Your task to perform on an android device: turn on data saver in the chrome app Image 0: 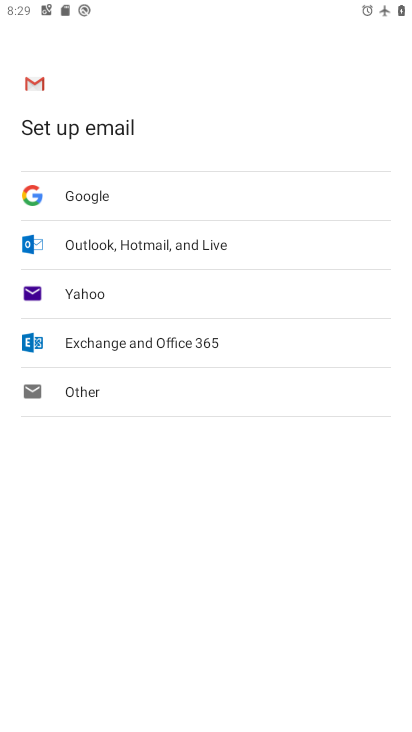
Step 0: press home button
Your task to perform on an android device: turn on data saver in the chrome app Image 1: 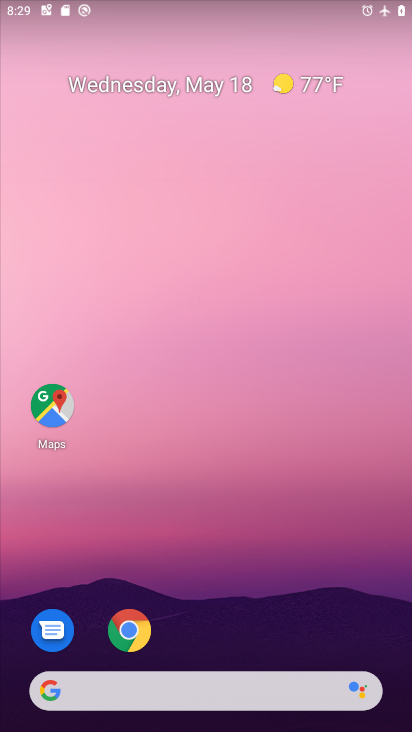
Step 1: drag from (259, 630) to (287, 248)
Your task to perform on an android device: turn on data saver in the chrome app Image 2: 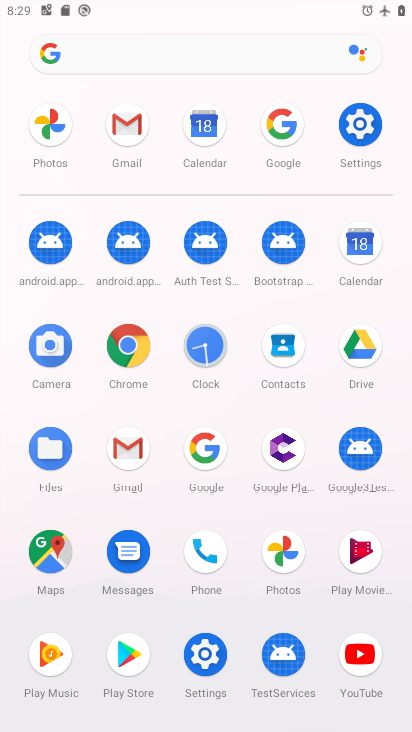
Step 2: click (138, 356)
Your task to perform on an android device: turn on data saver in the chrome app Image 3: 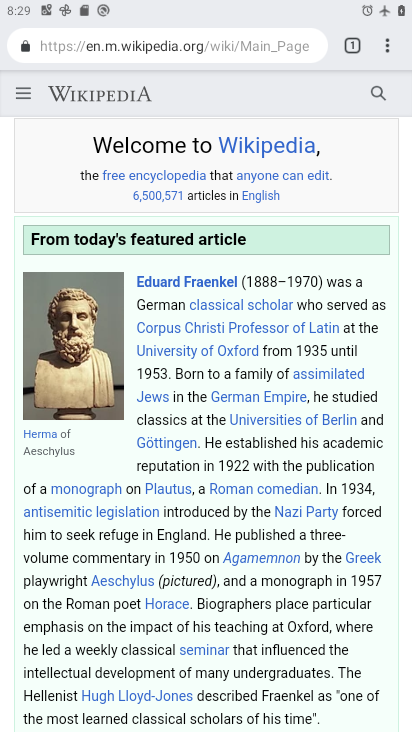
Step 3: drag from (387, 50) to (206, 505)
Your task to perform on an android device: turn on data saver in the chrome app Image 4: 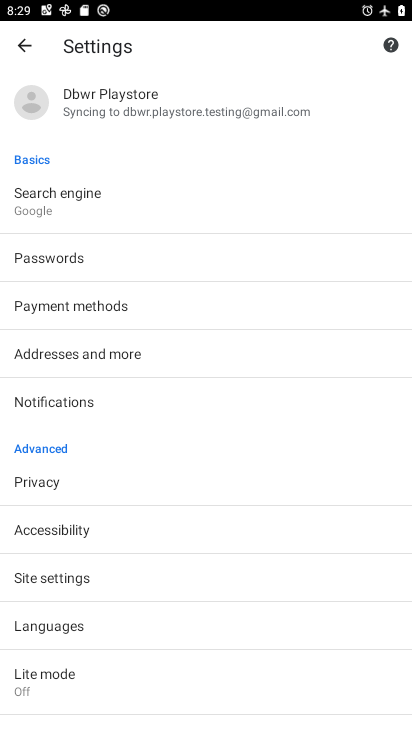
Step 4: click (52, 685)
Your task to perform on an android device: turn on data saver in the chrome app Image 5: 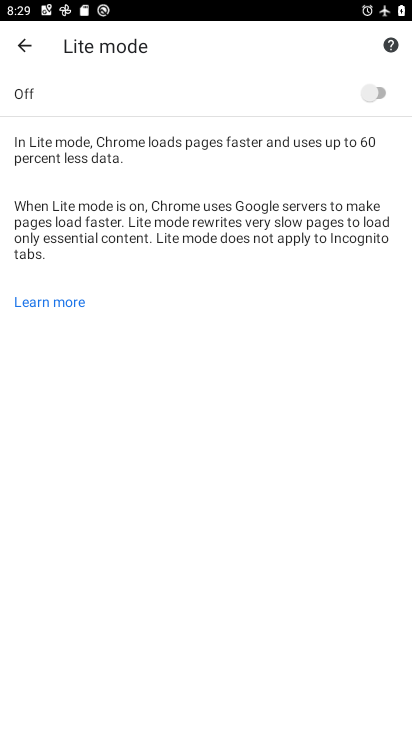
Step 5: click (379, 86)
Your task to perform on an android device: turn on data saver in the chrome app Image 6: 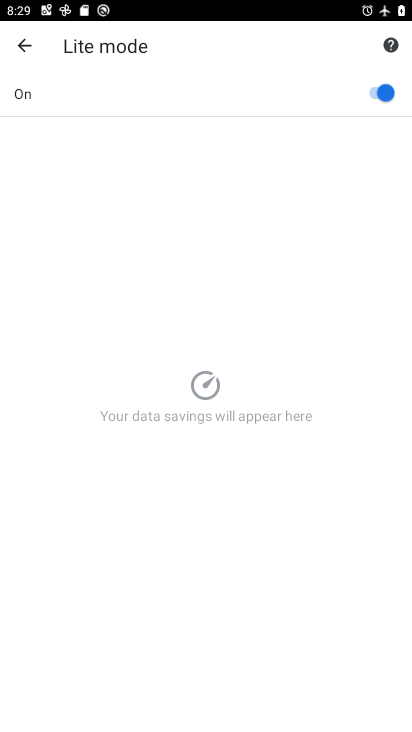
Step 6: task complete